Your task to perform on an android device: Open wifi settings Image 0: 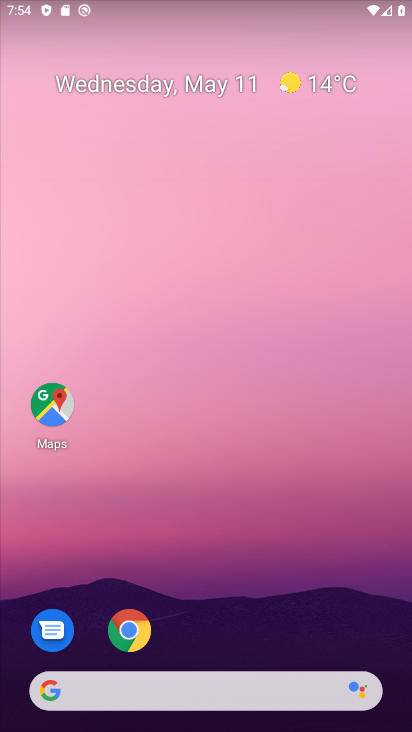
Step 0: drag from (208, 652) to (172, 192)
Your task to perform on an android device: Open wifi settings Image 1: 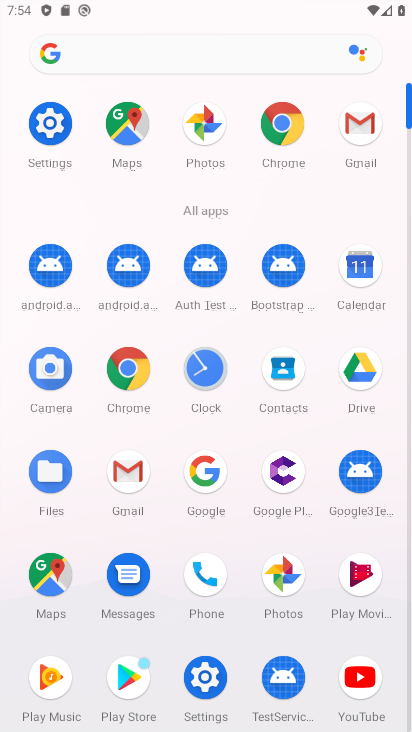
Step 1: click (59, 119)
Your task to perform on an android device: Open wifi settings Image 2: 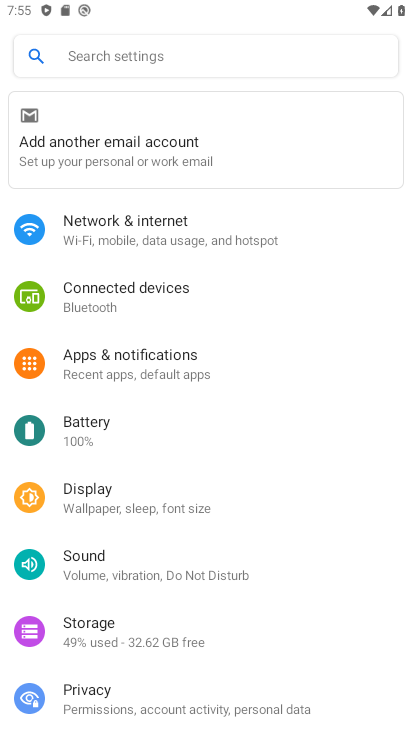
Step 2: click (81, 214)
Your task to perform on an android device: Open wifi settings Image 3: 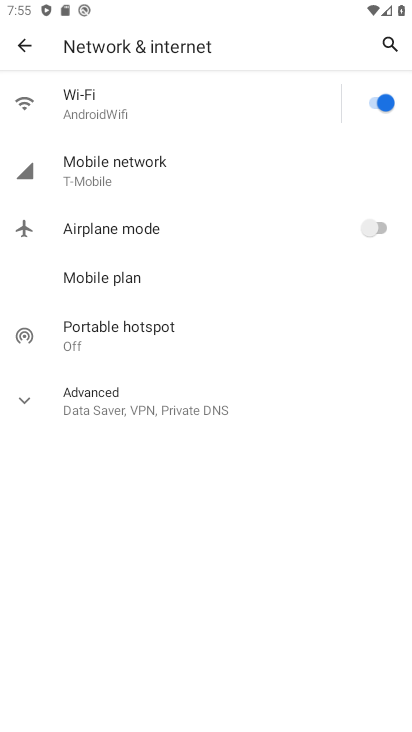
Step 3: click (114, 123)
Your task to perform on an android device: Open wifi settings Image 4: 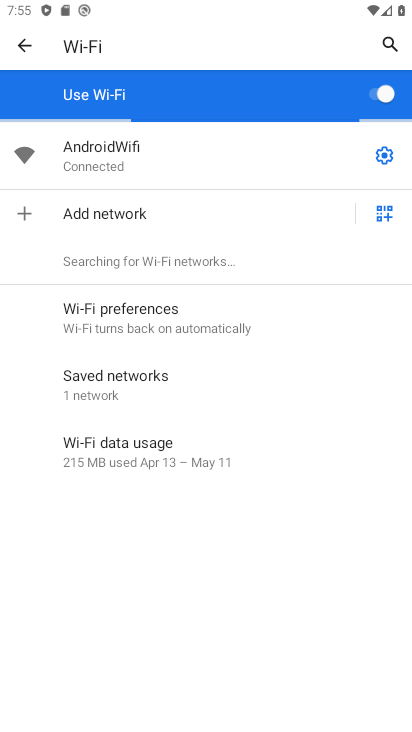
Step 4: task complete